Your task to perform on an android device: turn off javascript in the chrome app Image 0: 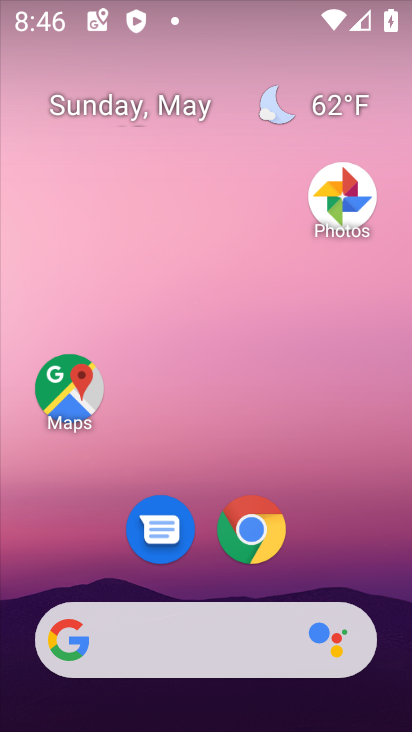
Step 0: drag from (311, 266) to (304, 163)
Your task to perform on an android device: turn off javascript in the chrome app Image 1: 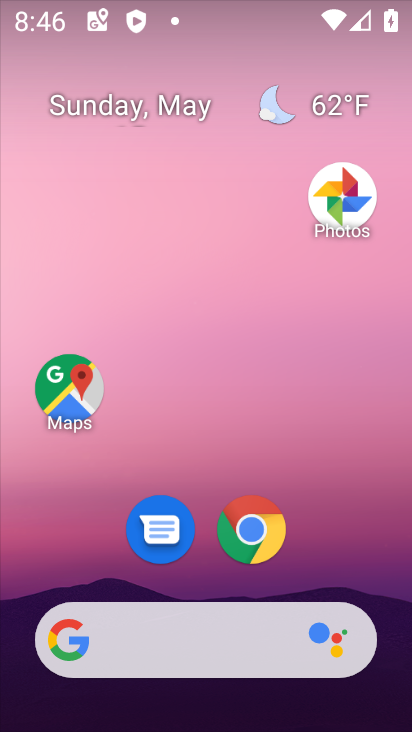
Step 1: drag from (354, 568) to (290, 103)
Your task to perform on an android device: turn off javascript in the chrome app Image 2: 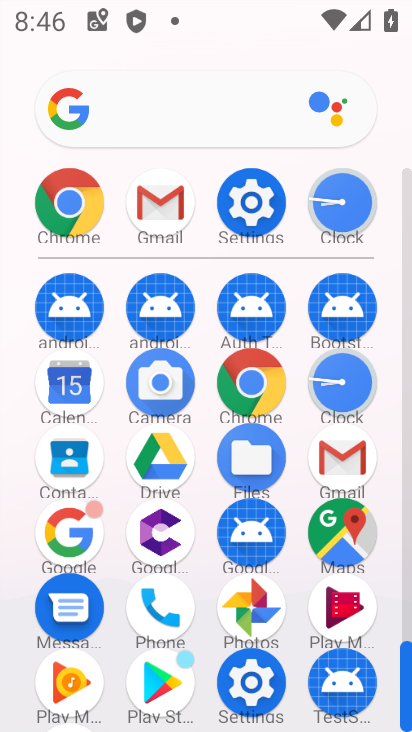
Step 2: click (258, 391)
Your task to perform on an android device: turn off javascript in the chrome app Image 3: 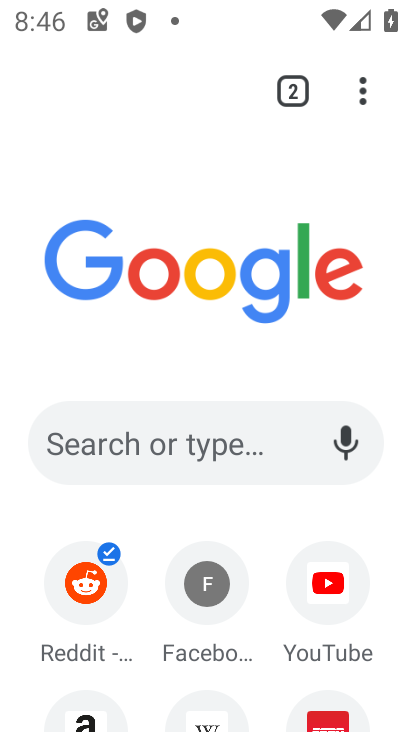
Step 3: drag from (364, 97) to (234, 560)
Your task to perform on an android device: turn off javascript in the chrome app Image 4: 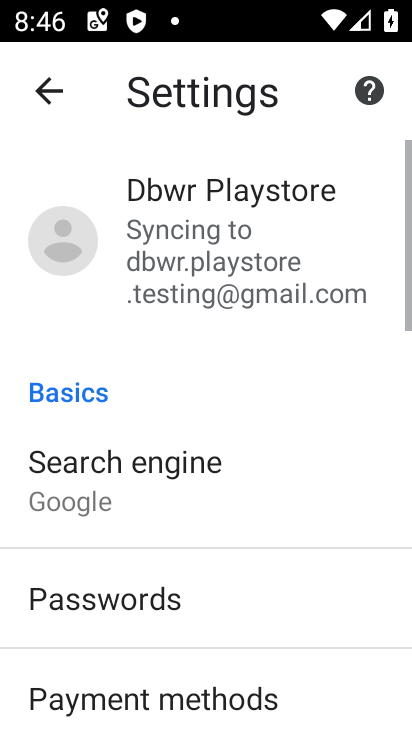
Step 4: drag from (234, 647) to (251, 213)
Your task to perform on an android device: turn off javascript in the chrome app Image 5: 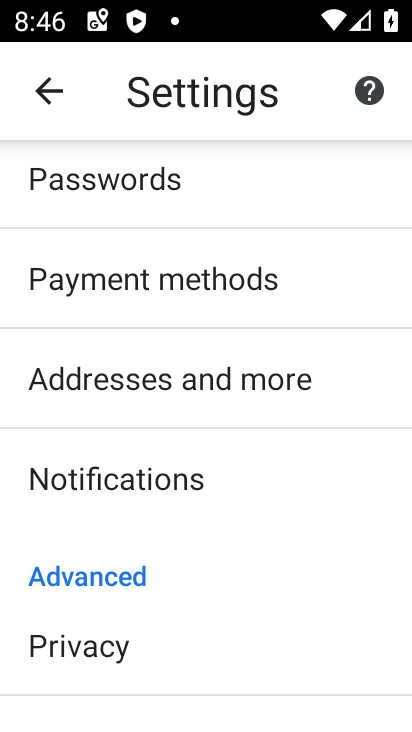
Step 5: drag from (224, 474) to (252, 281)
Your task to perform on an android device: turn off javascript in the chrome app Image 6: 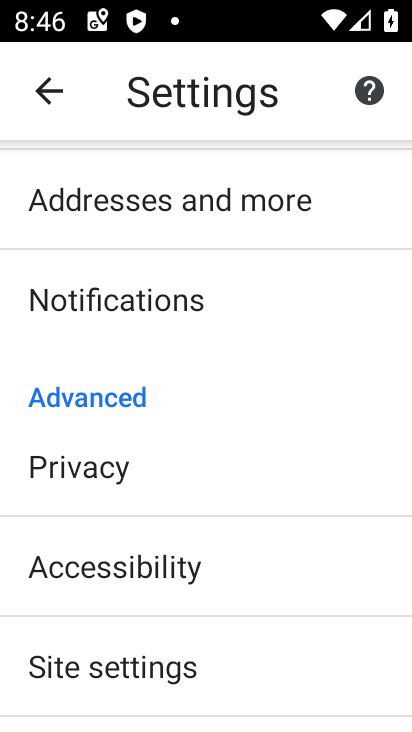
Step 6: click (195, 657)
Your task to perform on an android device: turn off javascript in the chrome app Image 7: 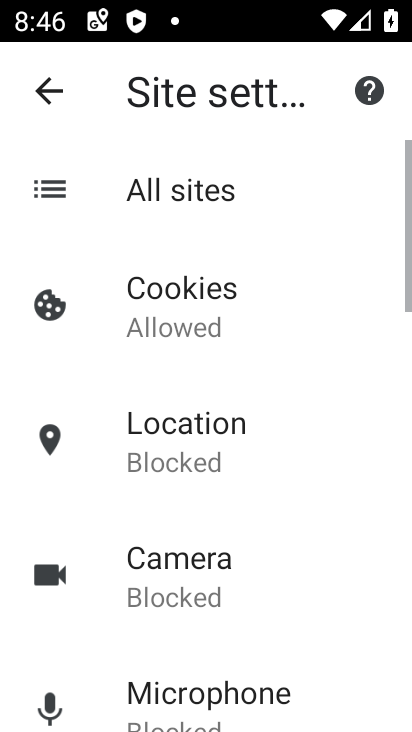
Step 7: drag from (297, 625) to (306, 310)
Your task to perform on an android device: turn off javascript in the chrome app Image 8: 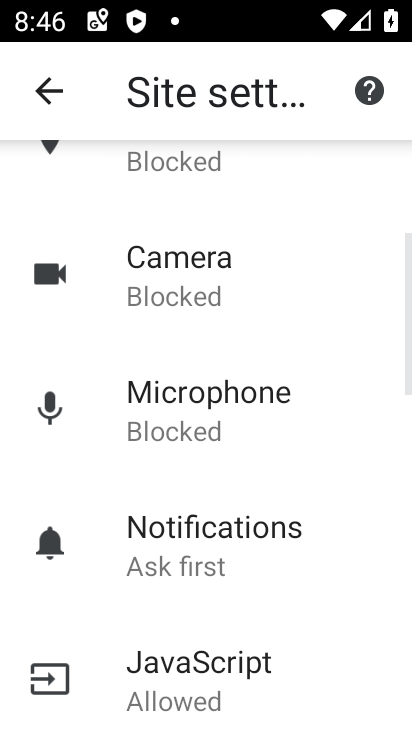
Step 8: click (299, 689)
Your task to perform on an android device: turn off javascript in the chrome app Image 9: 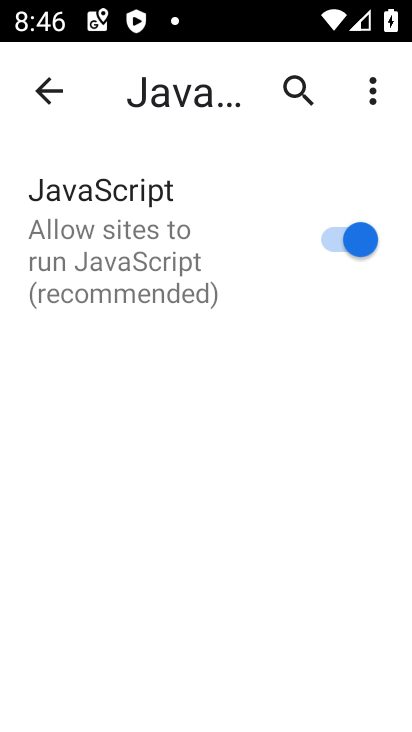
Step 9: click (335, 253)
Your task to perform on an android device: turn off javascript in the chrome app Image 10: 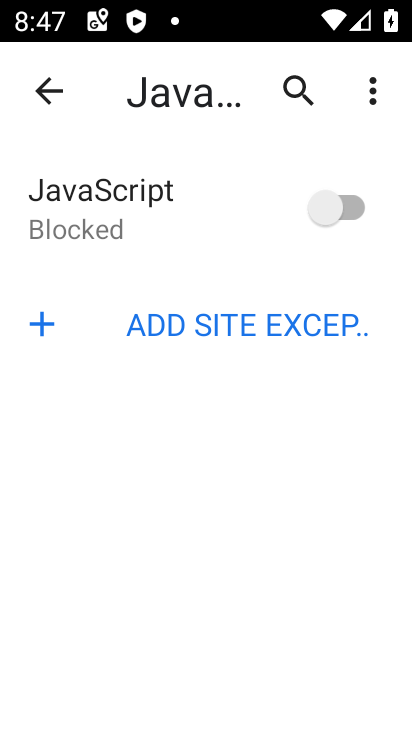
Step 10: task complete